Your task to perform on an android device: Go to CNN.com Image 0: 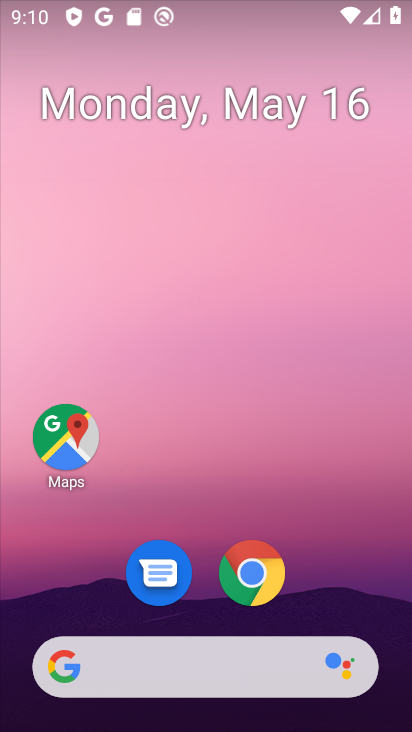
Step 0: click (253, 576)
Your task to perform on an android device: Go to CNN.com Image 1: 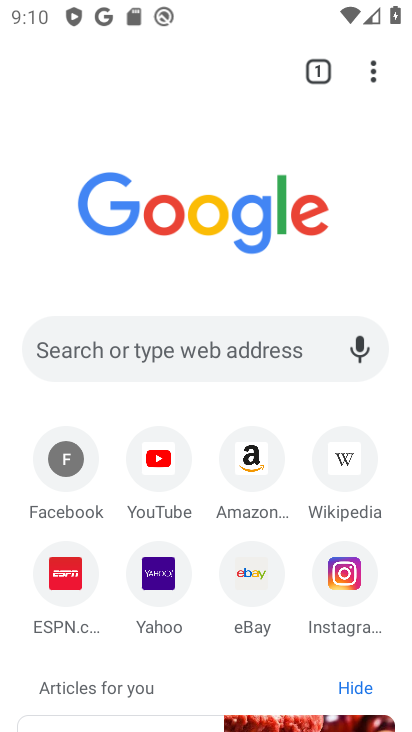
Step 1: click (274, 351)
Your task to perform on an android device: Go to CNN.com Image 2: 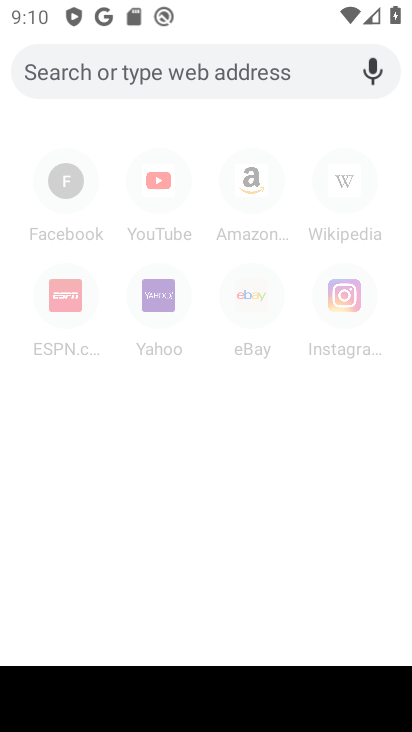
Step 2: type "cnn.com"
Your task to perform on an android device: Go to CNN.com Image 3: 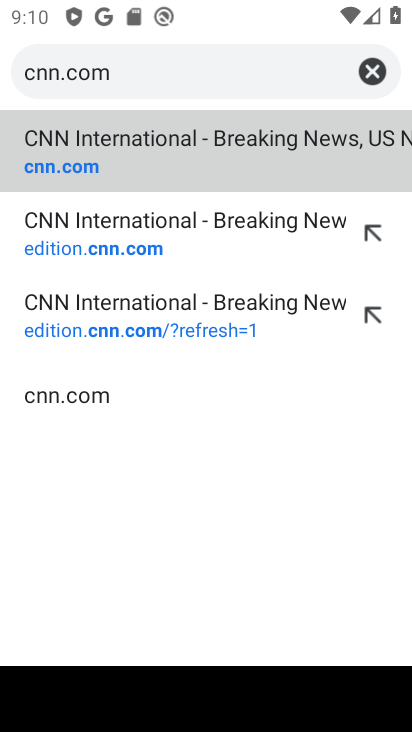
Step 3: click (61, 159)
Your task to perform on an android device: Go to CNN.com Image 4: 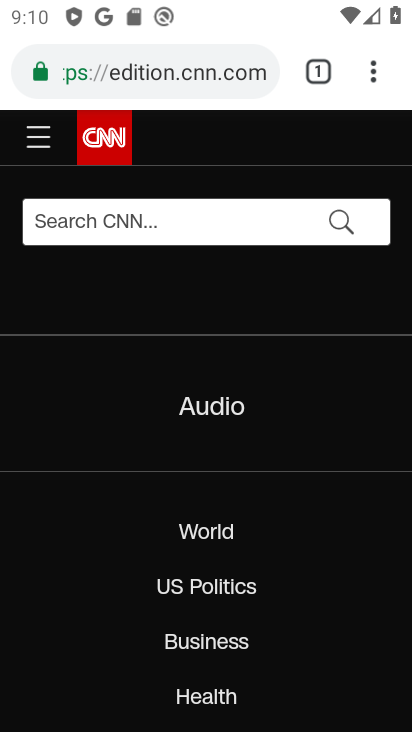
Step 4: task complete